Your task to perform on an android device: Open the stopwatch Image 0: 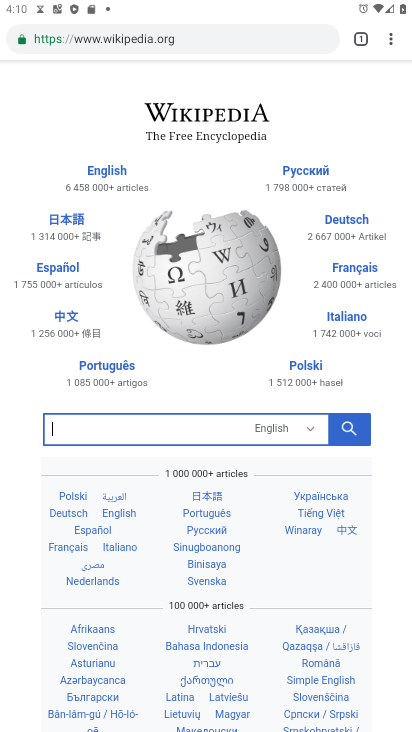
Step 0: press home button
Your task to perform on an android device: Open the stopwatch Image 1: 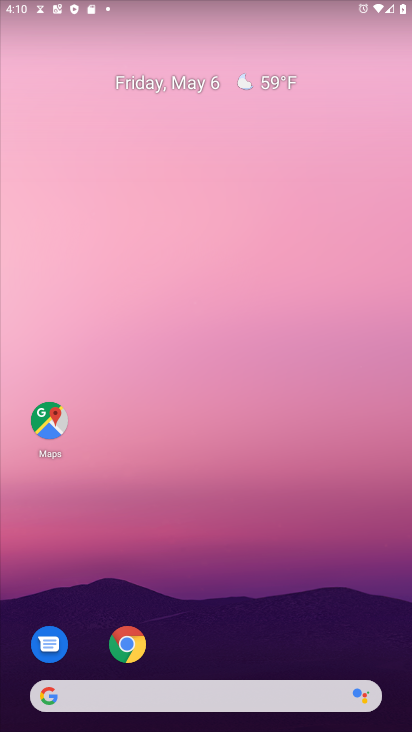
Step 1: drag from (210, 562) to (157, 50)
Your task to perform on an android device: Open the stopwatch Image 2: 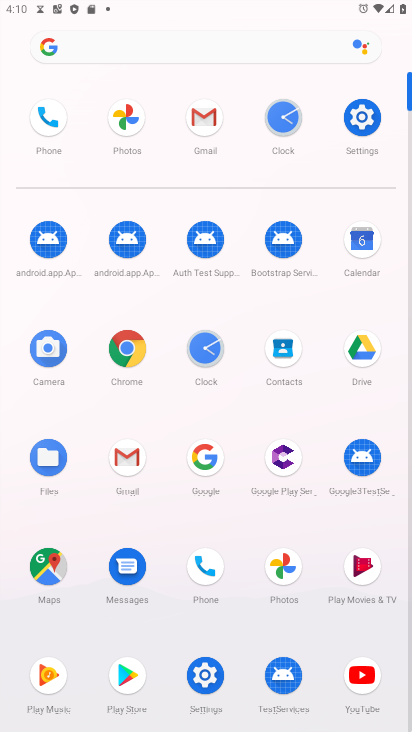
Step 2: click (284, 117)
Your task to perform on an android device: Open the stopwatch Image 3: 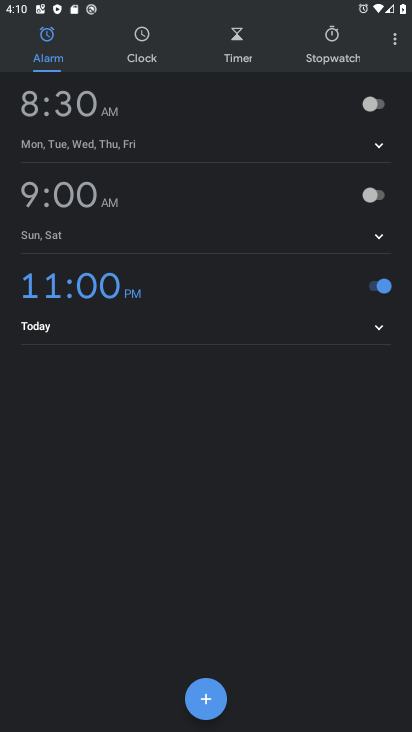
Step 3: click (332, 41)
Your task to perform on an android device: Open the stopwatch Image 4: 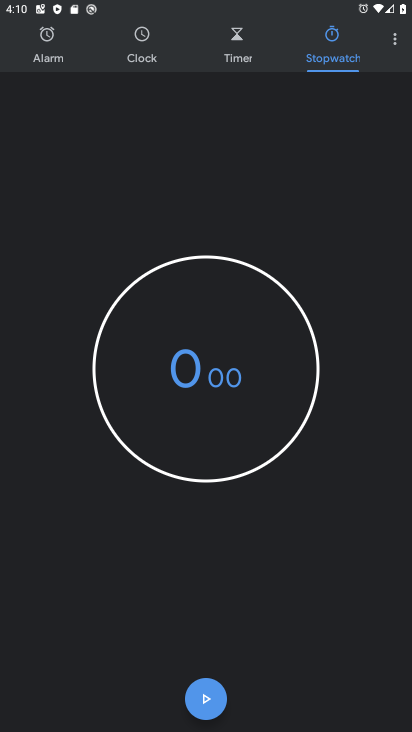
Step 4: task complete